Your task to perform on an android device: allow cookies in the chrome app Image 0: 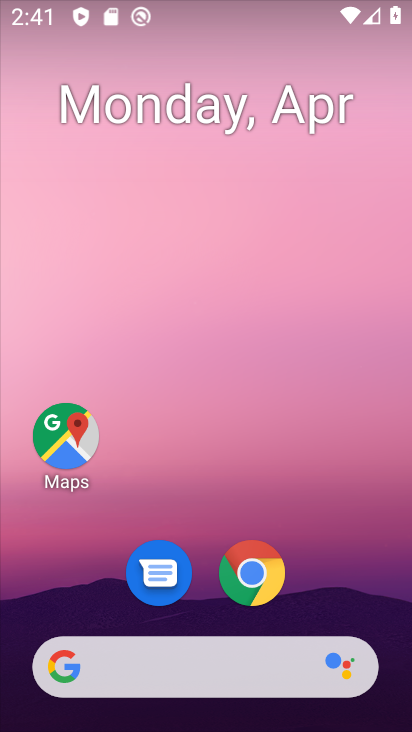
Step 0: drag from (357, 586) to (354, 86)
Your task to perform on an android device: allow cookies in the chrome app Image 1: 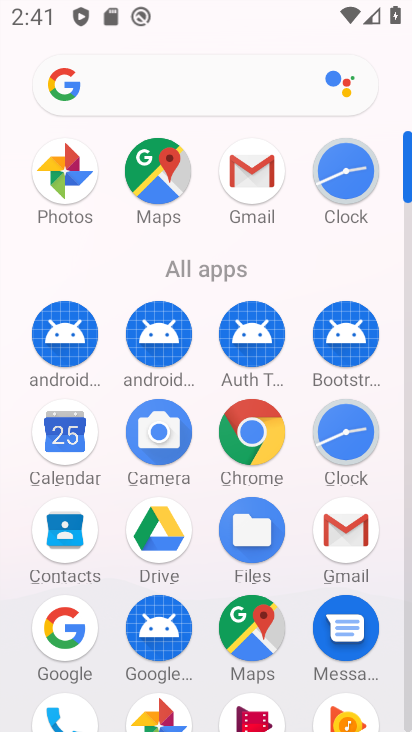
Step 1: click (262, 451)
Your task to perform on an android device: allow cookies in the chrome app Image 2: 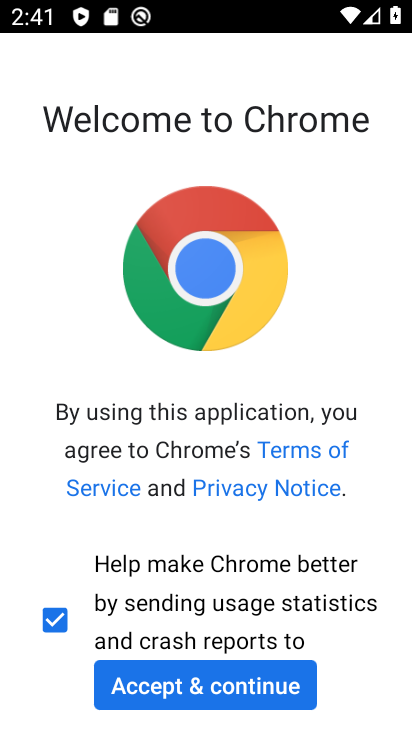
Step 2: click (226, 669)
Your task to perform on an android device: allow cookies in the chrome app Image 3: 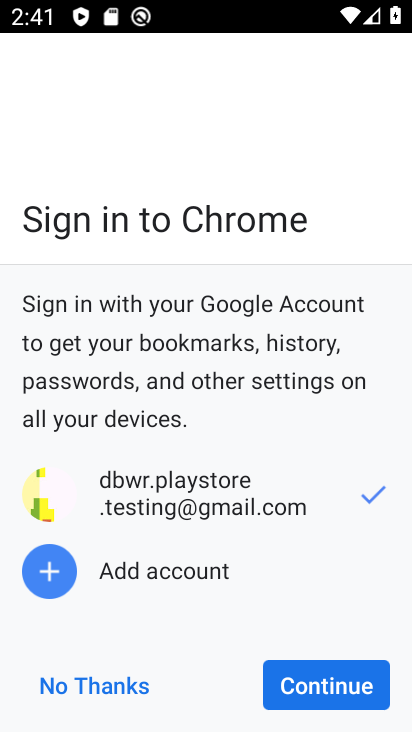
Step 3: click (305, 682)
Your task to perform on an android device: allow cookies in the chrome app Image 4: 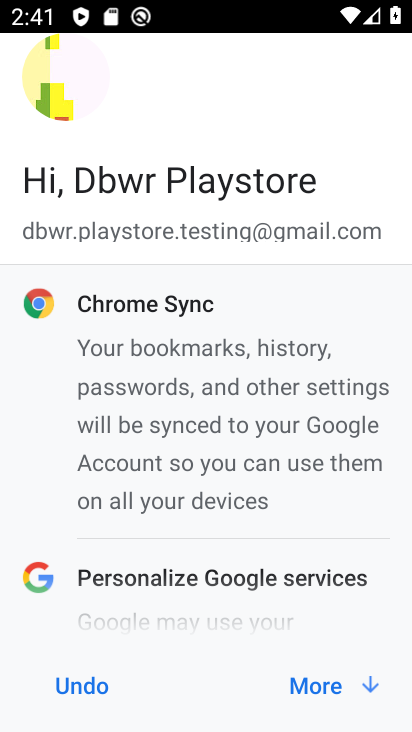
Step 4: click (305, 682)
Your task to perform on an android device: allow cookies in the chrome app Image 5: 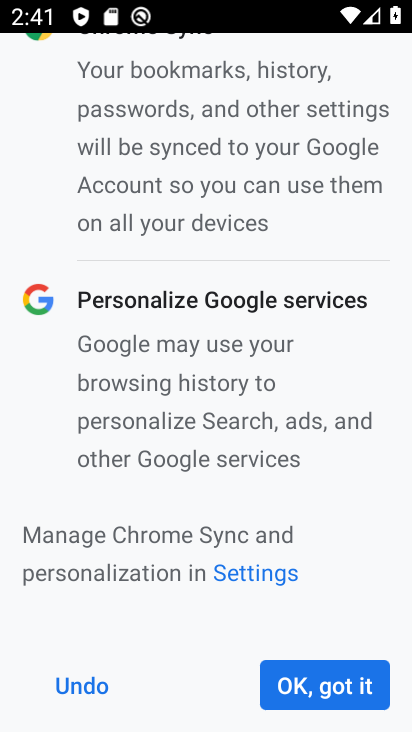
Step 5: click (304, 680)
Your task to perform on an android device: allow cookies in the chrome app Image 6: 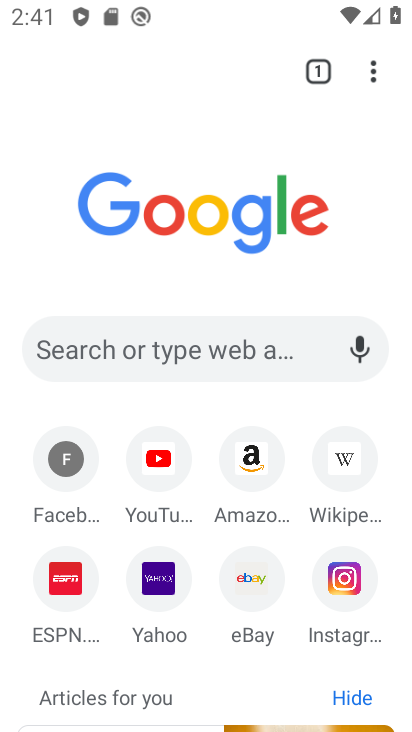
Step 6: click (377, 68)
Your task to perform on an android device: allow cookies in the chrome app Image 7: 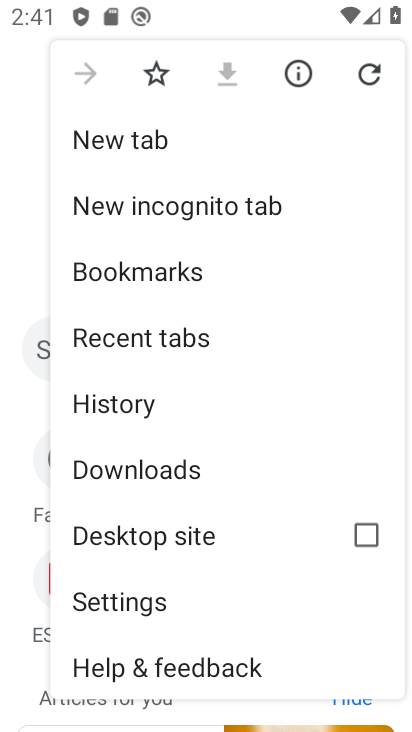
Step 7: drag from (263, 569) to (253, 390)
Your task to perform on an android device: allow cookies in the chrome app Image 8: 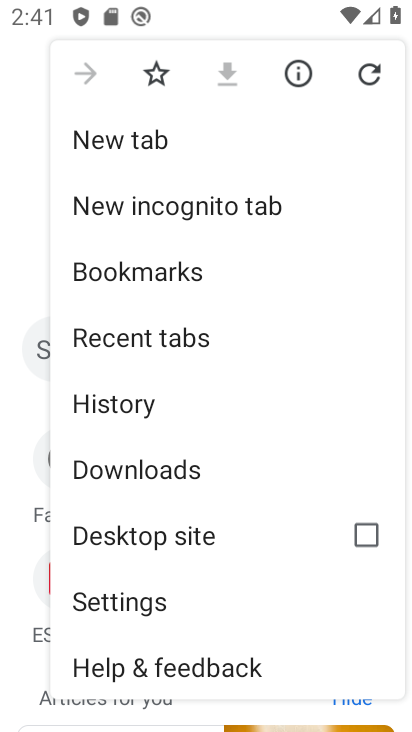
Step 8: click (173, 614)
Your task to perform on an android device: allow cookies in the chrome app Image 9: 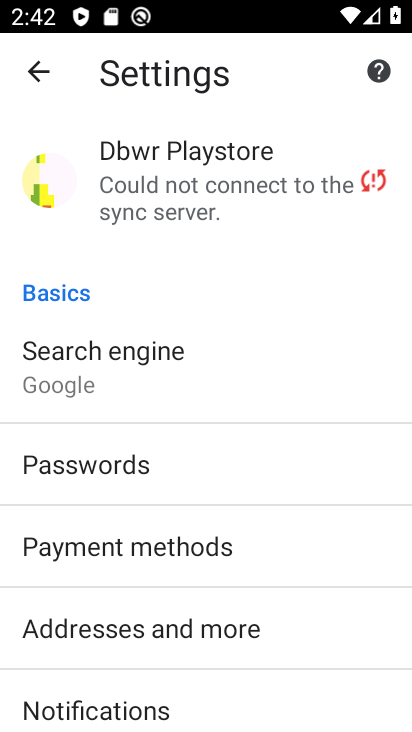
Step 9: drag from (317, 598) to (323, 460)
Your task to perform on an android device: allow cookies in the chrome app Image 10: 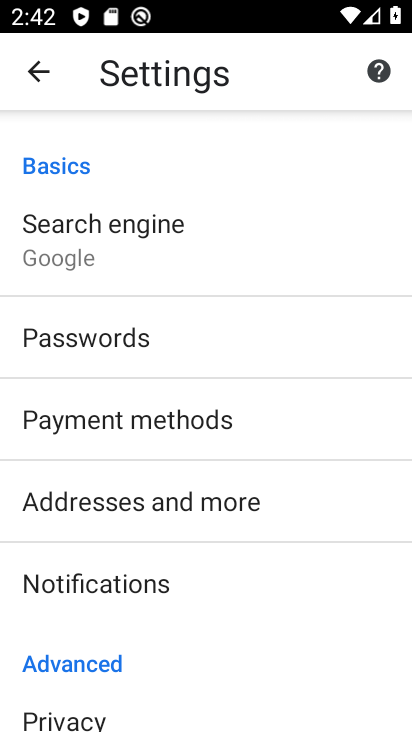
Step 10: drag from (339, 630) to (345, 496)
Your task to perform on an android device: allow cookies in the chrome app Image 11: 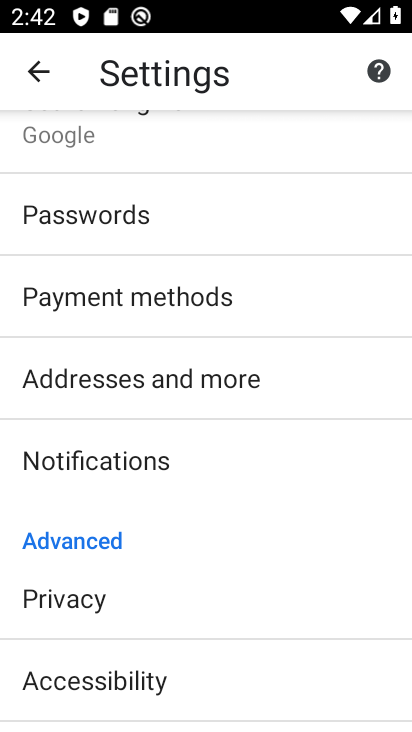
Step 11: drag from (335, 658) to (340, 536)
Your task to perform on an android device: allow cookies in the chrome app Image 12: 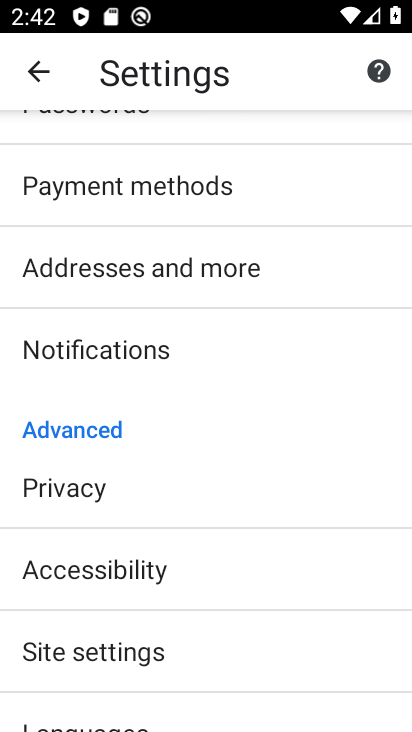
Step 12: drag from (337, 655) to (346, 536)
Your task to perform on an android device: allow cookies in the chrome app Image 13: 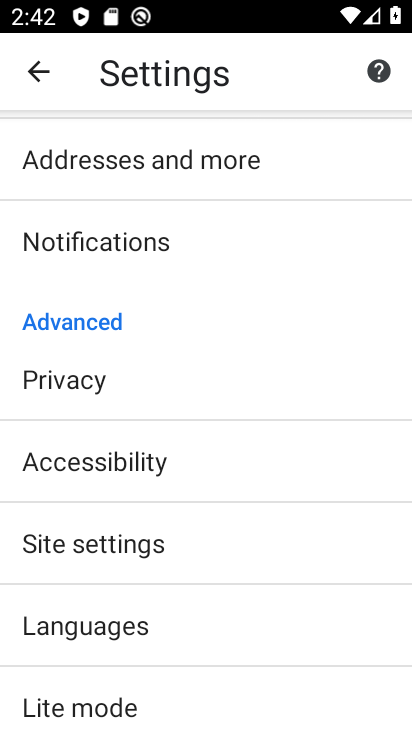
Step 13: drag from (353, 662) to (349, 515)
Your task to perform on an android device: allow cookies in the chrome app Image 14: 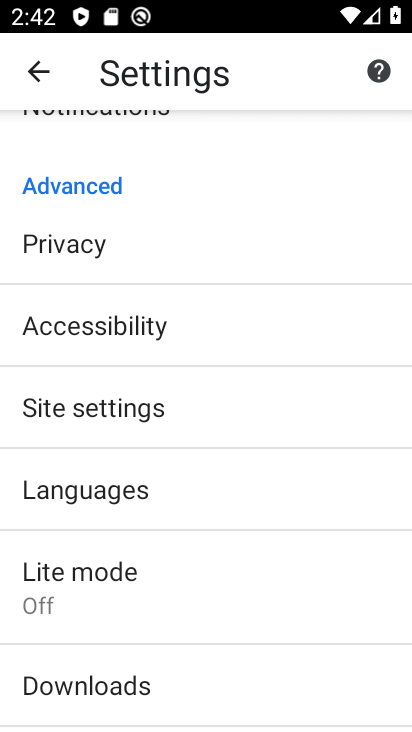
Step 14: drag from (343, 665) to (329, 515)
Your task to perform on an android device: allow cookies in the chrome app Image 15: 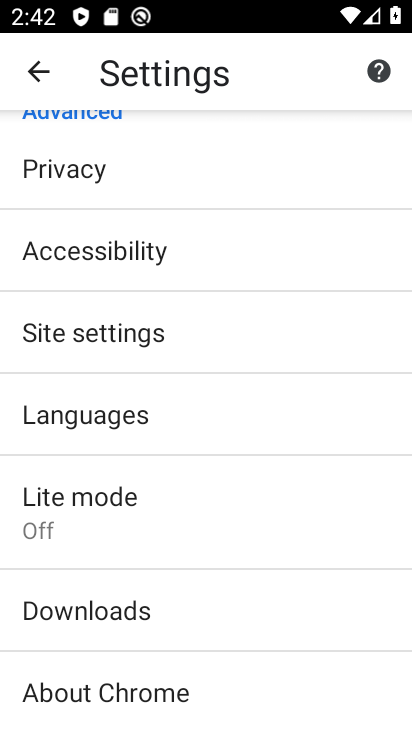
Step 15: click (229, 345)
Your task to perform on an android device: allow cookies in the chrome app Image 16: 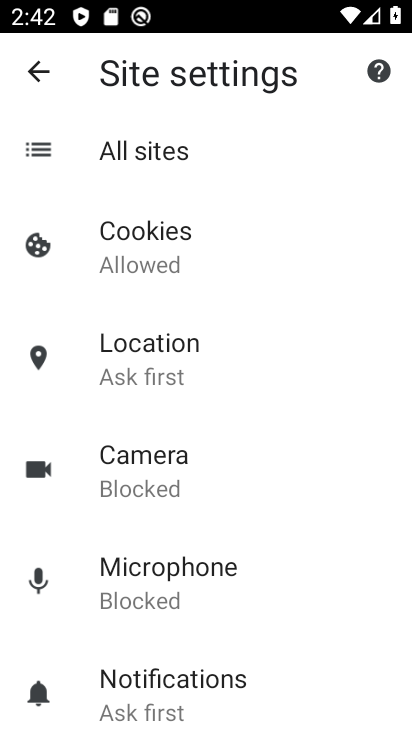
Step 16: drag from (344, 638) to (348, 537)
Your task to perform on an android device: allow cookies in the chrome app Image 17: 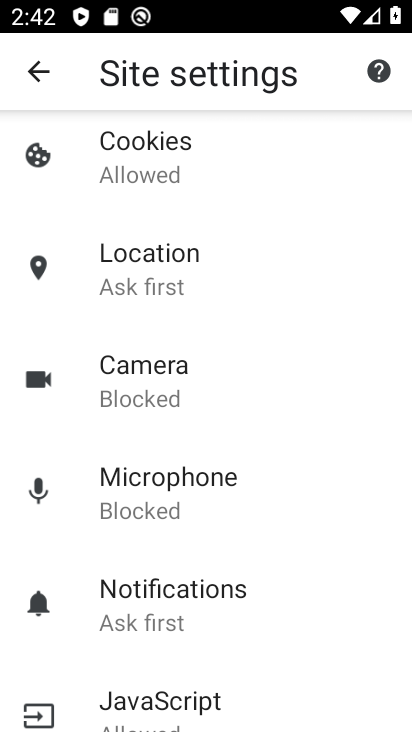
Step 17: drag from (350, 644) to (351, 510)
Your task to perform on an android device: allow cookies in the chrome app Image 18: 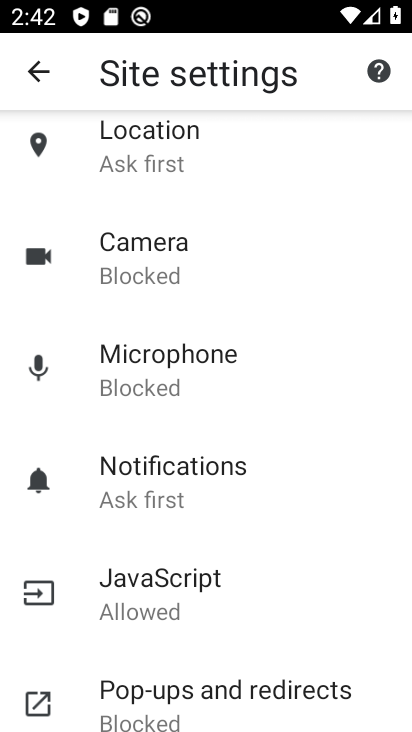
Step 18: drag from (321, 615) to (326, 479)
Your task to perform on an android device: allow cookies in the chrome app Image 19: 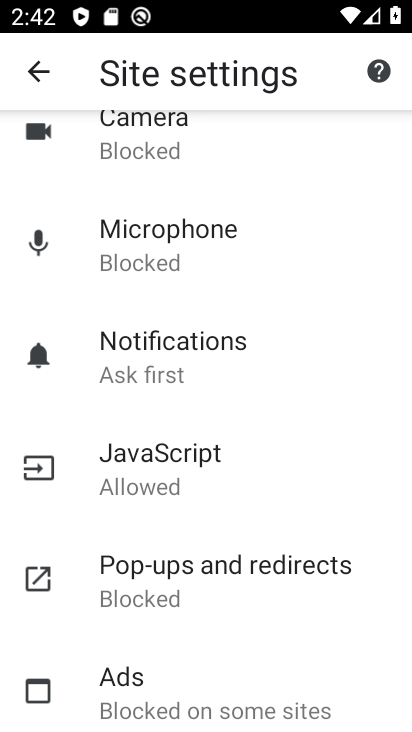
Step 19: drag from (347, 641) to (366, 461)
Your task to perform on an android device: allow cookies in the chrome app Image 20: 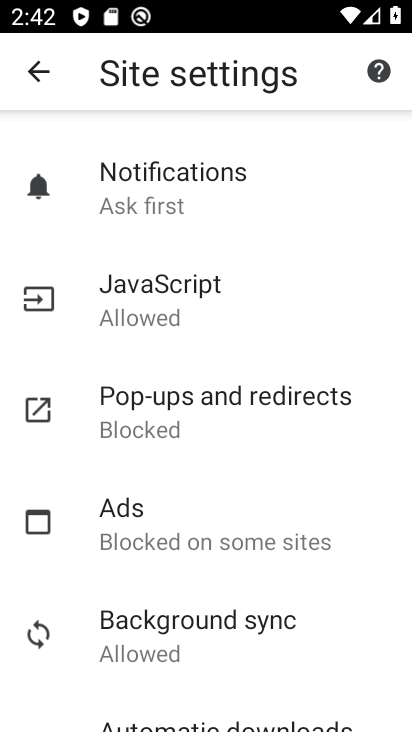
Step 20: drag from (365, 622) to (356, 457)
Your task to perform on an android device: allow cookies in the chrome app Image 21: 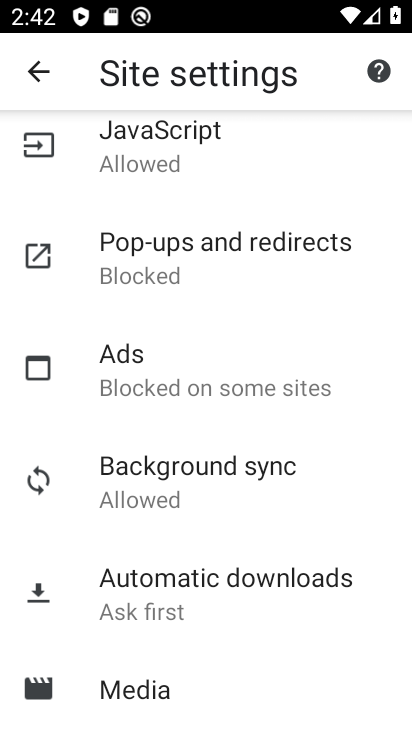
Step 21: drag from (359, 377) to (354, 486)
Your task to perform on an android device: allow cookies in the chrome app Image 22: 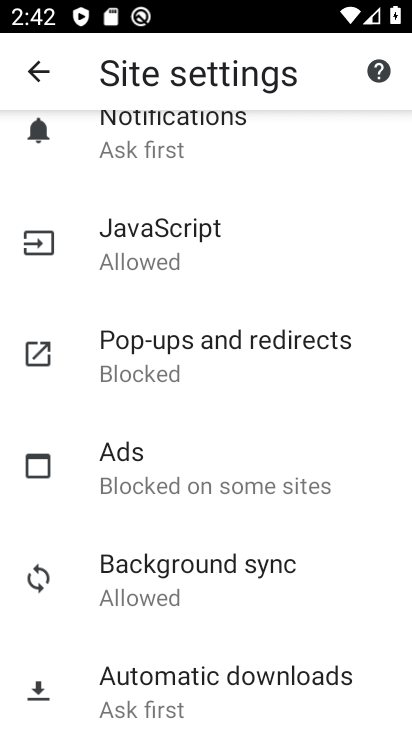
Step 22: drag from (366, 398) to (360, 500)
Your task to perform on an android device: allow cookies in the chrome app Image 23: 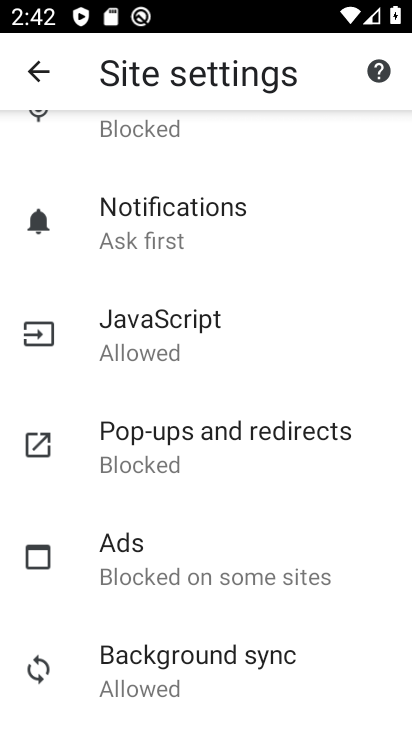
Step 23: drag from (369, 348) to (379, 513)
Your task to perform on an android device: allow cookies in the chrome app Image 24: 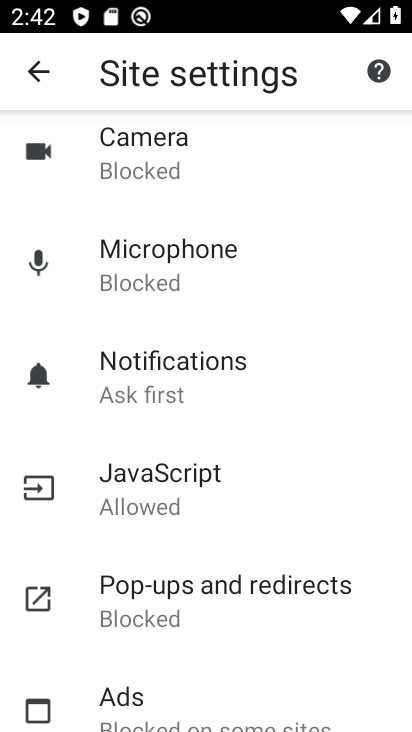
Step 24: drag from (368, 330) to (369, 456)
Your task to perform on an android device: allow cookies in the chrome app Image 25: 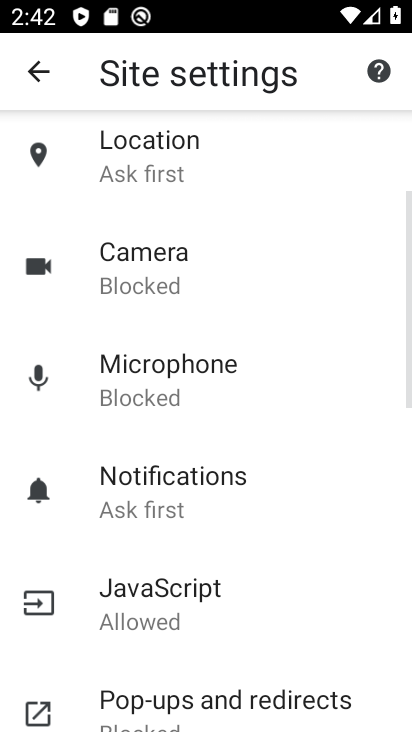
Step 25: drag from (377, 319) to (383, 460)
Your task to perform on an android device: allow cookies in the chrome app Image 26: 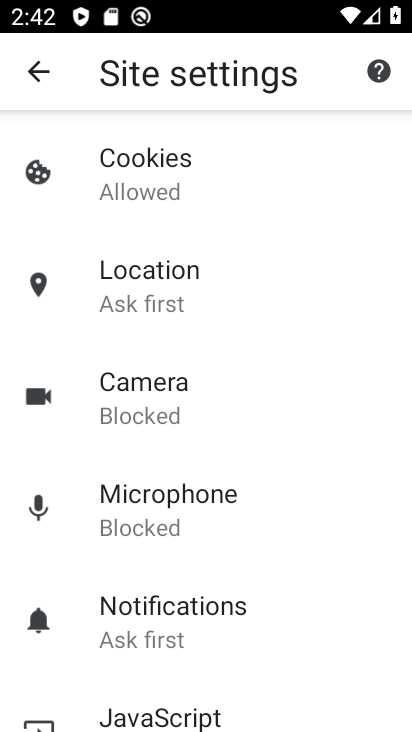
Step 26: drag from (358, 295) to (355, 428)
Your task to perform on an android device: allow cookies in the chrome app Image 27: 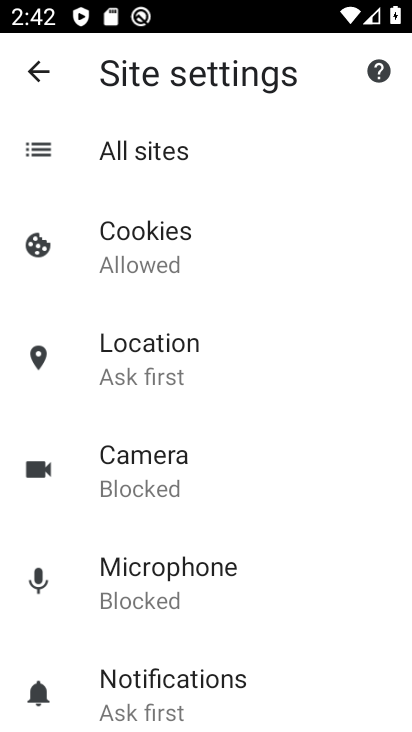
Step 27: drag from (342, 276) to (339, 377)
Your task to perform on an android device: allow cookies in the chrome app Image 28: 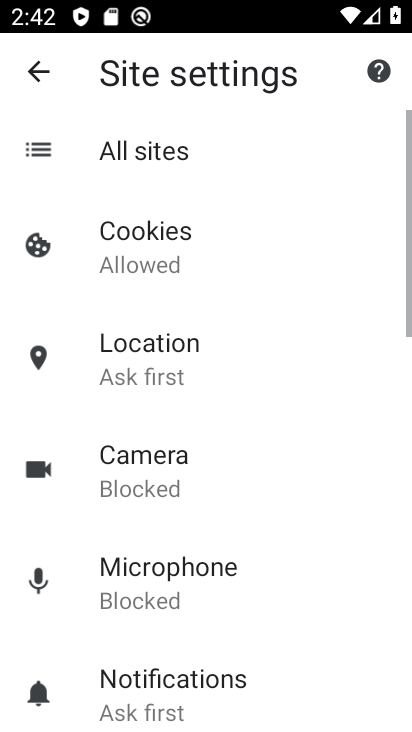
Step 28: click (266, 275)
Your task to perform on an android device: allow cookies in the chrome app Image 29: 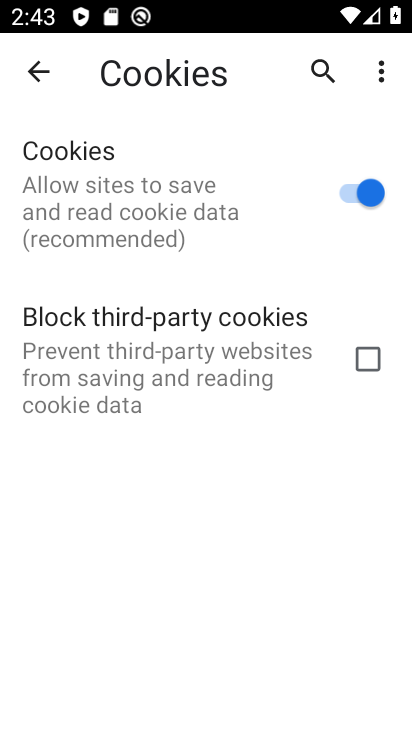
Step 29: task complete